Your task to perform on an android device: turn off notifications in google photos Image 0: 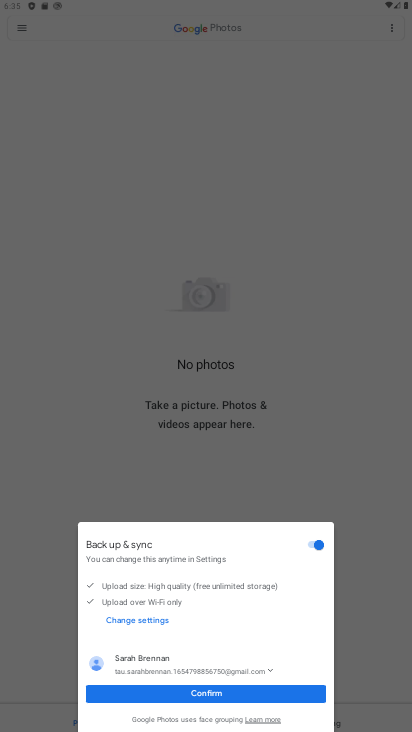
Step 0: press home button
Your task to perform on an android device: turn off notifications in google photos Image 1: 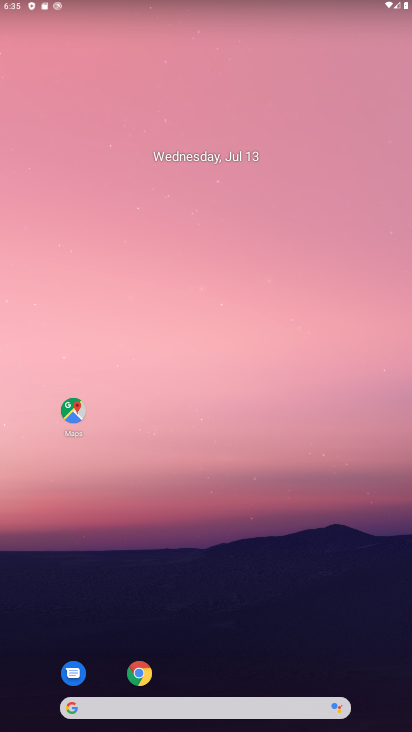
Step 1: drag from (282, 663) to (350, 109)
Your task to perform on an android device: turn off notifications in google photos Image 2: 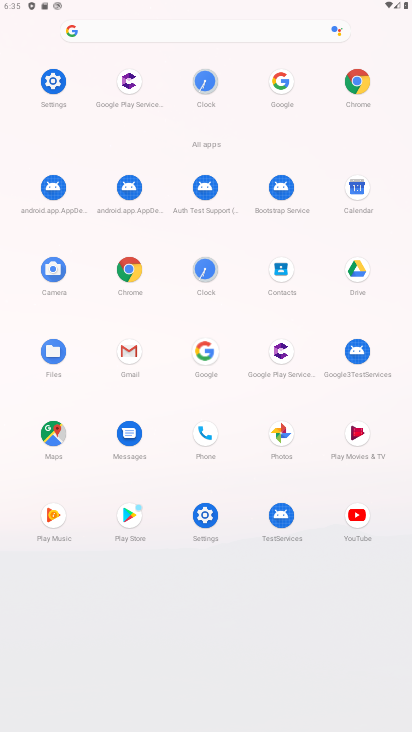
Step 2: click (278, 429)
Your task to perform on an android device: turn off notifications in google photos Image 3: 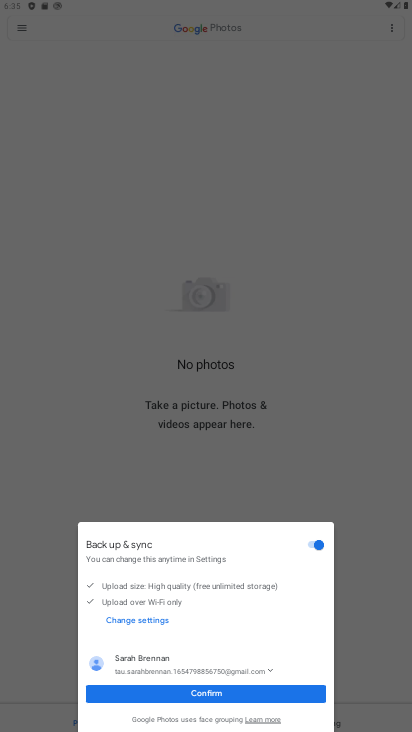
Step 3: click (220, 695)
Your task to perform on an android device: turn off notifications in google photos Image 4: 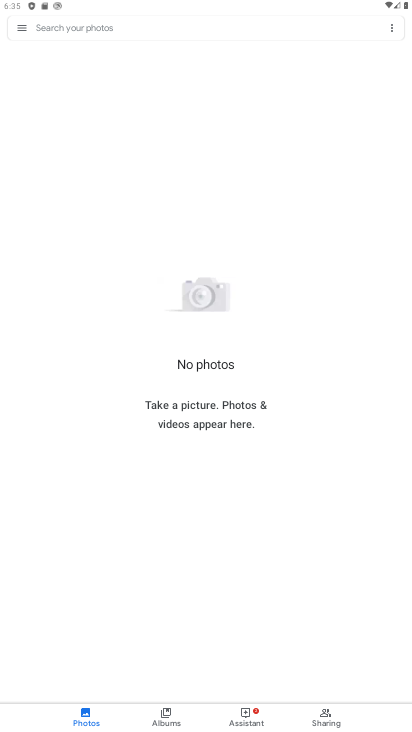
Step 4: click (23, 24)
Your task to perform on an android device: turn off notifications in google photos Image 5: 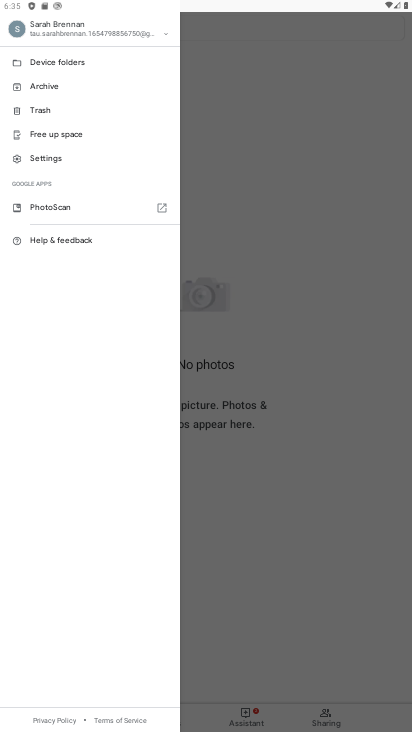
Step 5: click (59, 153)
Your task to perform on an android device: turn off notifications in google photos Image 6: 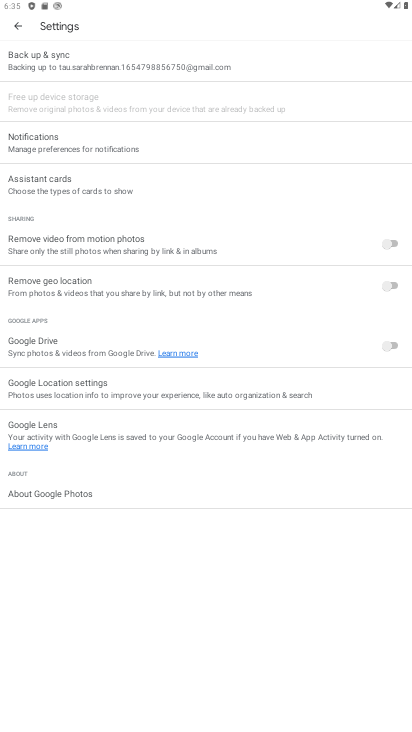
Step 6: click (49, 141)
Your task to perform on an android device: turn off notifications in google photos Image 7: 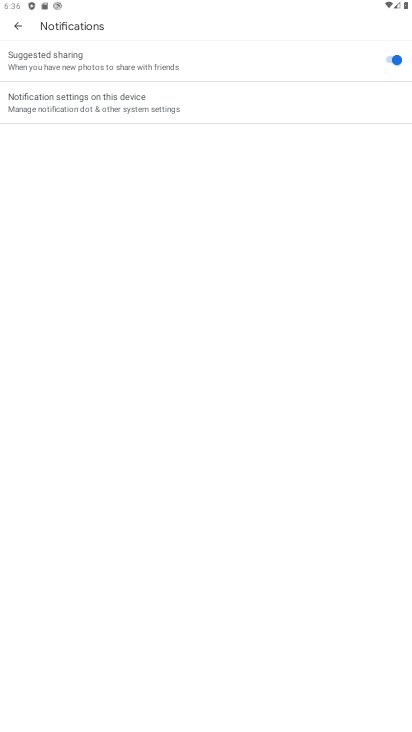
Step 7: click (74, 98)
Your task to perform on an android device: turn off notifications in google photos Image 8: 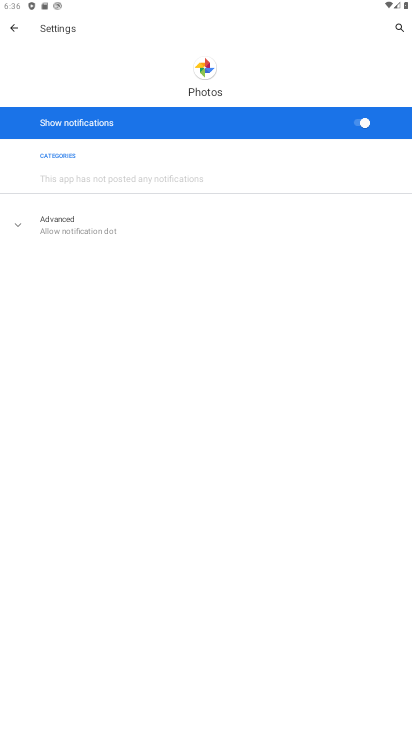
Step 8: click (369, 120)
Your task to perform on an android device: turn off notifications in google photos Image 9: 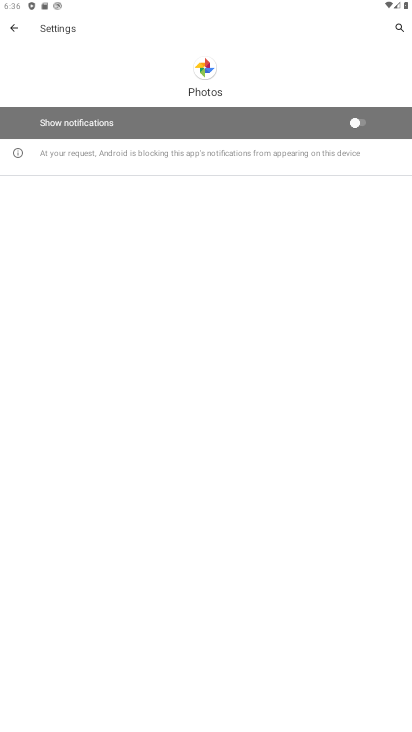
Step 9: task complete